Your task to perform on an android device: move a message to another label in the gmail app Image 0: 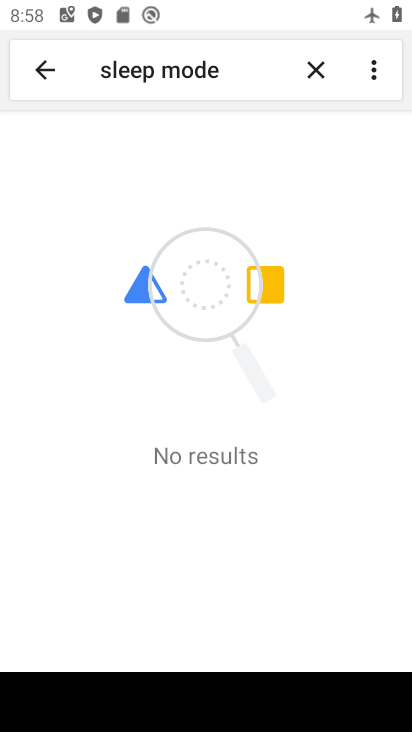
Step 0: press back button
Your task to perform on an android device: move a message to another label in the gmail app Image 1: 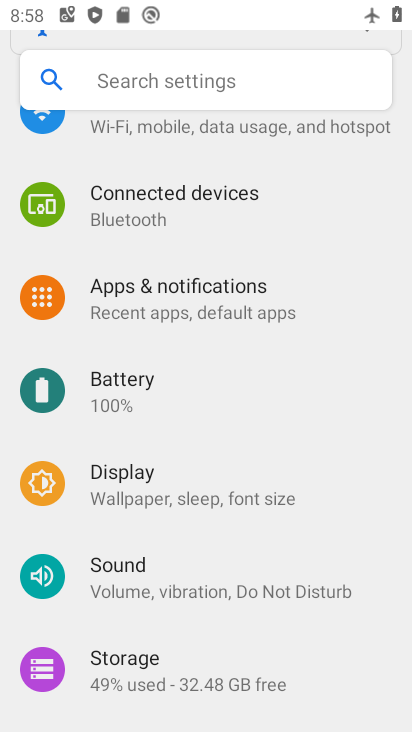
Step 1: click (163, 77)
Your task to perform on an android device: move a message to another label in the gmail app Image 2: 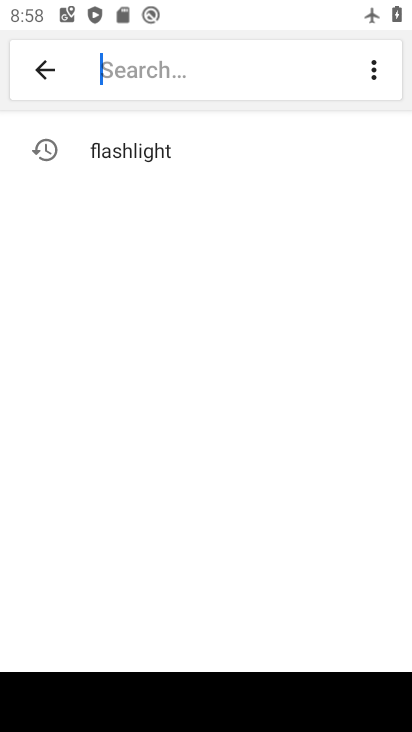
Step 2: type "sleep m"
Your task to perform on an android device: move a message to another label in the gmail app Image 3: 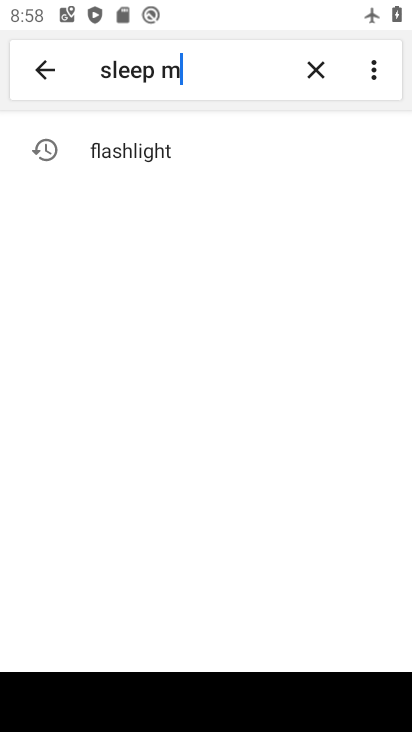
Step 3: press home button
Your task to perform on an android device: move a message to another label in the gmail app Image 4: 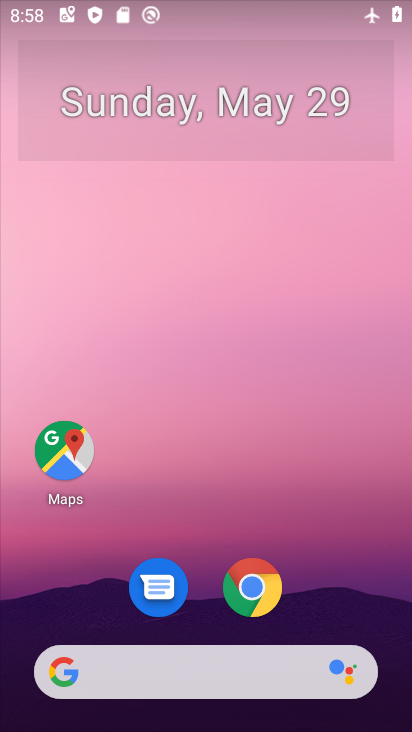
Step 4: drag from (191, 526) to (258, 33)
Your task to perform on an android device: move a message to another label in the gmail app Image 5: 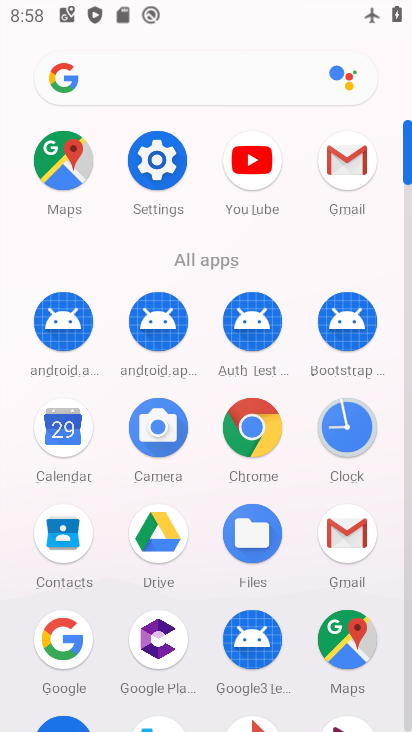
Step 5: click (329, 159)
Your task to perform on an android device: move a message to another label in the gmail app Image 6: 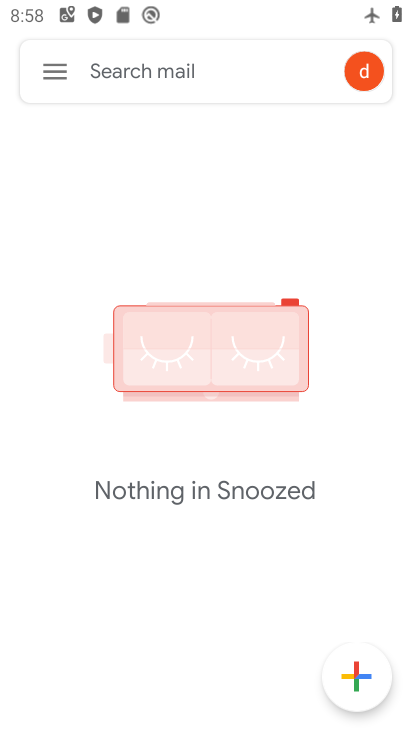
Step 6: click (61, 69)
Your task to perform on an android device: move a message to another label in the gmail app Image 7: 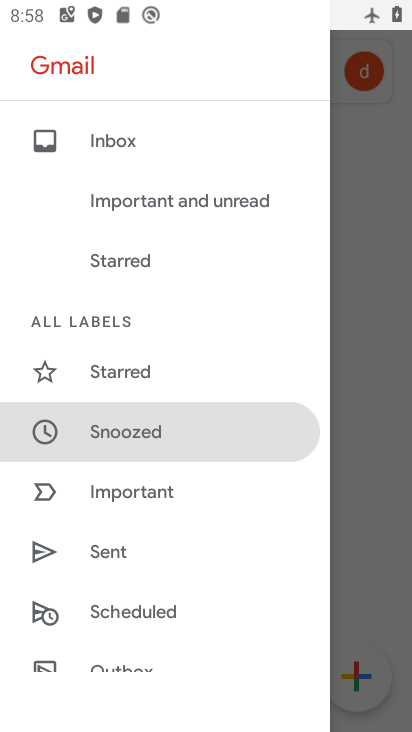
Step 7: drag from (130, 621) to (191, 146)
Your task to perform on an android device: move a message to another label in the gmail app Image 8: 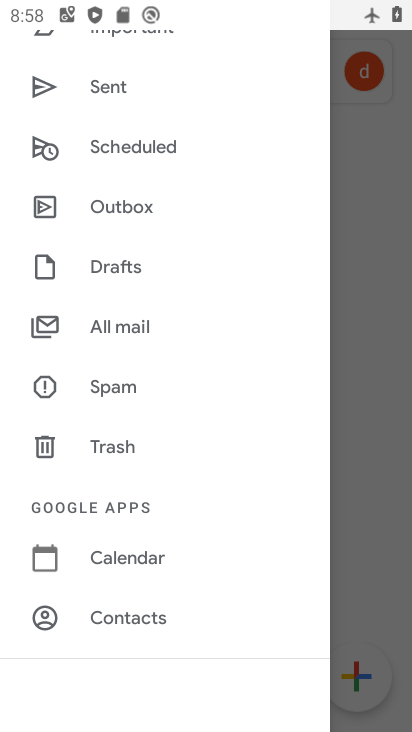
Step 8: click (98, 321)
Your task to perform on an android device: move a message to another label in the gmail app Image 9: 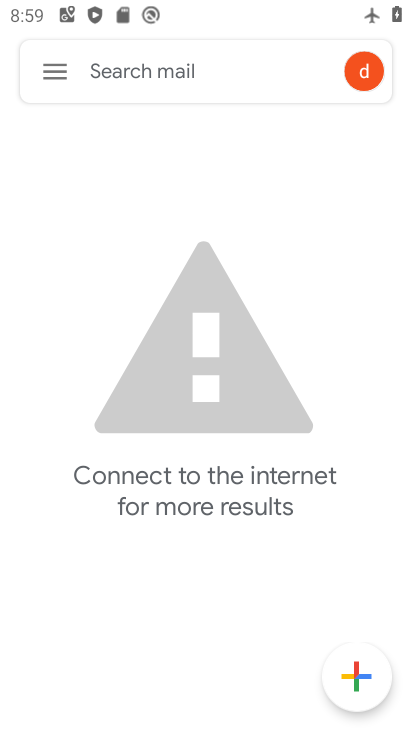
Step 9: drag from (367, 9) to (294, 498)
Your task to perform on an android device: move a message to another label in the gmail app Image 10: 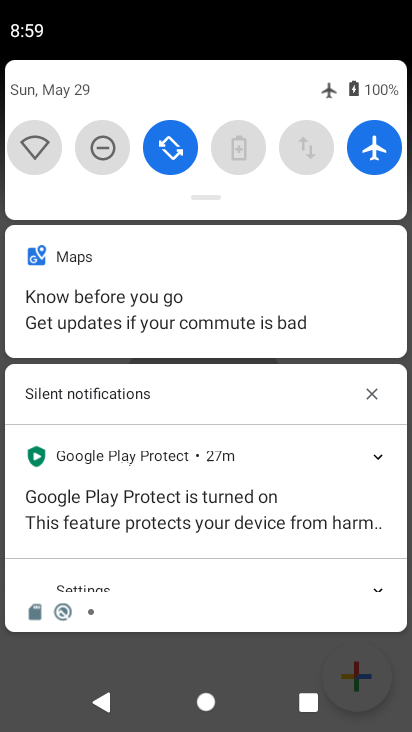
Step 10: click (370, 148)
Your task to perform on an android device: move a message to another label in the gmail app Image 11: 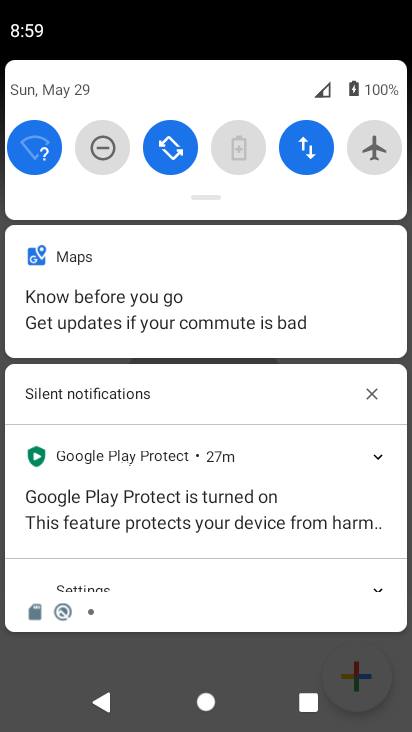
Step 11: click (144, 652)
Your task to perform on an android device: move a message to another label in the gmail app Image 12: 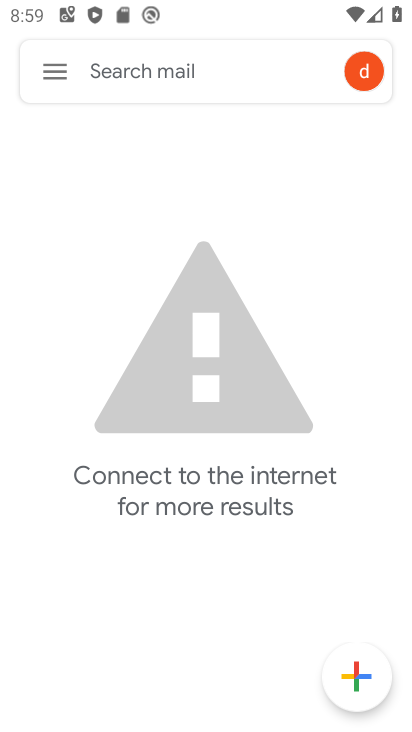
Step 12: task complete